Your task to perform on an android device: Open calendar and show me the fourth week of next month Image 0: 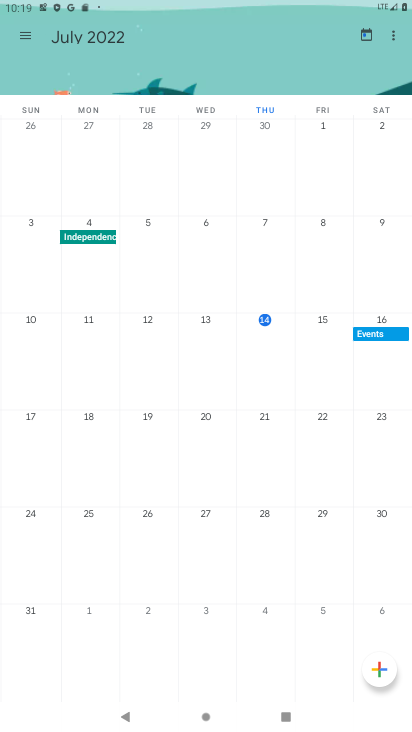
Step 0: press home button
Your task to perform on an android device: Open calendar and show me the fourth week of next month Image 1: 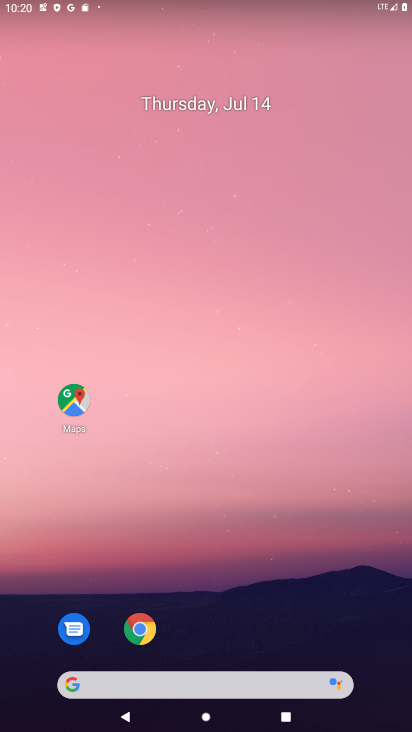
Step 1: drag from (33, 648) to (388, 70)
Your task to perform on an android device: Open calendar and show me the fourth week of next month Image 2: 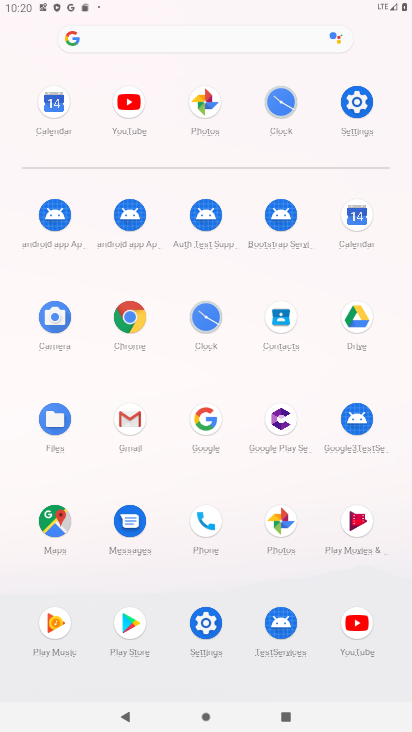
Step 2: click (356, 213)
Your task to perform on an android device: Open calendar and show me the fourth week of next month Image 3: 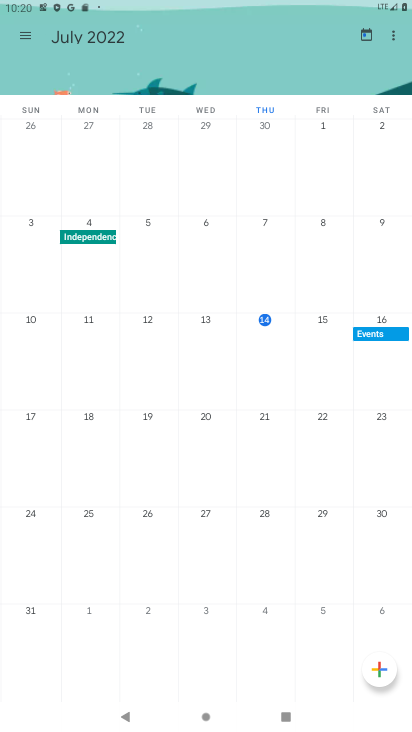
Step 3: click (99, 34)
Your task to perform on an android device: Open calendar and show me the fourth week of next month Image 4: 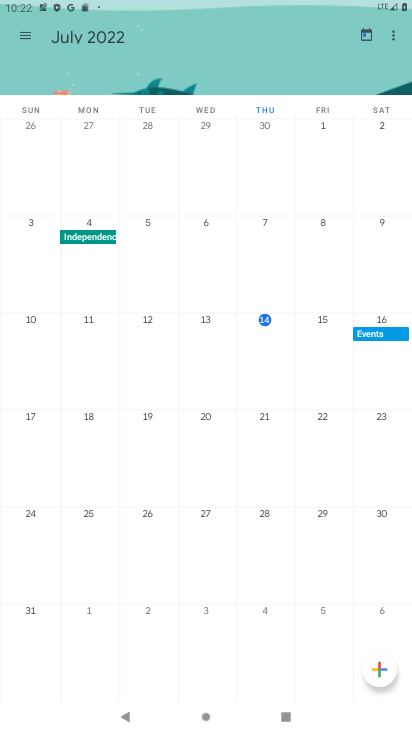
Step 4: task complete